Your task to perform on an android device: open device folders in google photos Image 0: 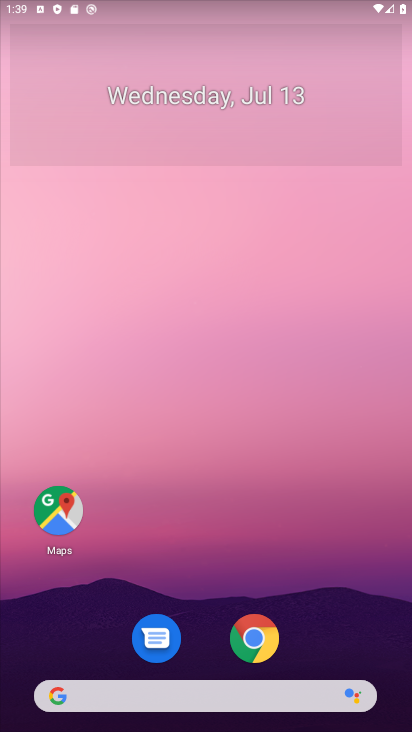
Step 0: drag from (231, 722) to (295, 21)
Your task to perform on an android device: open device folders in google photos Image 1: 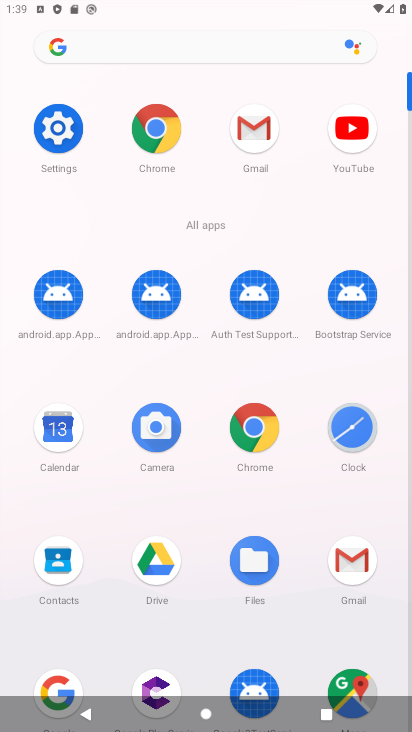
Step 1: drag from (223, 304) to (327, 17)
Your task to perform on an android device: open device folders in google photos Image 2: 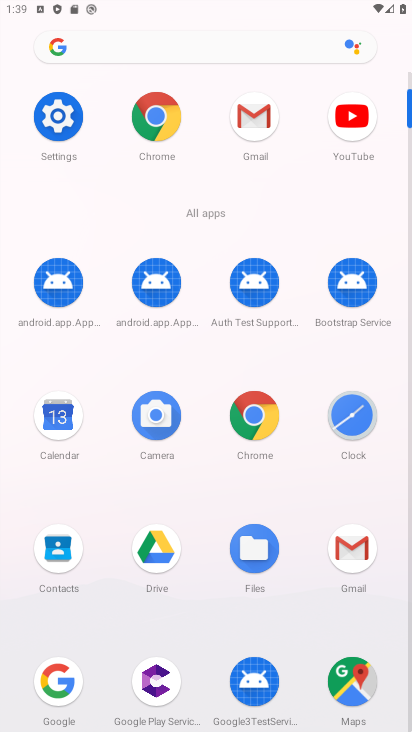
Step 2: drag from (317, 691) to (207, 68)
Your task to perform on an android device: open device folders in google photos Image 3: 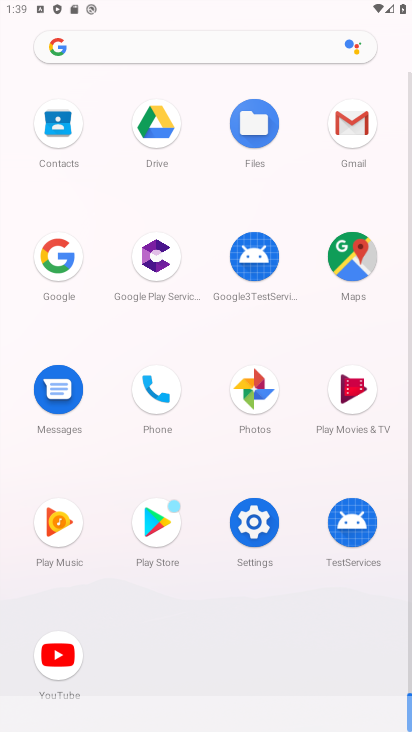
Step 3: click (246, 387)
Your task to perform on an android device: open device folders in google photos Image 4: 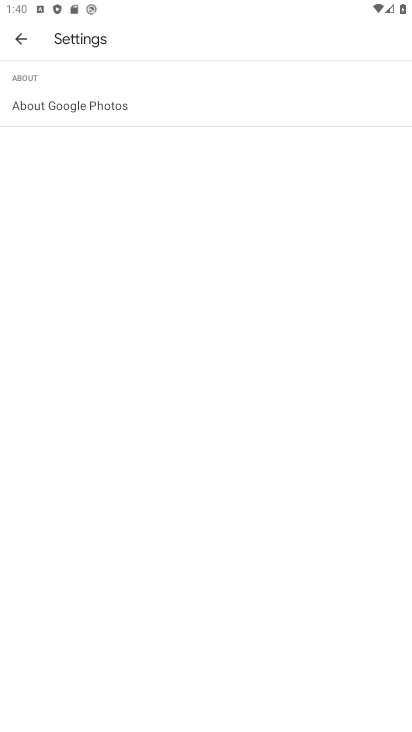
Step 4: press home button
Your task to perform on an android device: open device folders in google photos Image 5: 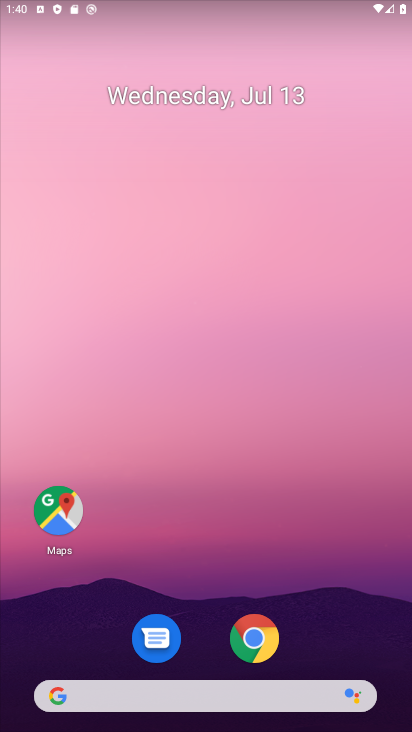
Step 5: drag from (253, 591) to (337, 122)
Your task to perform on an android device: open device folders in google photos Image 6: 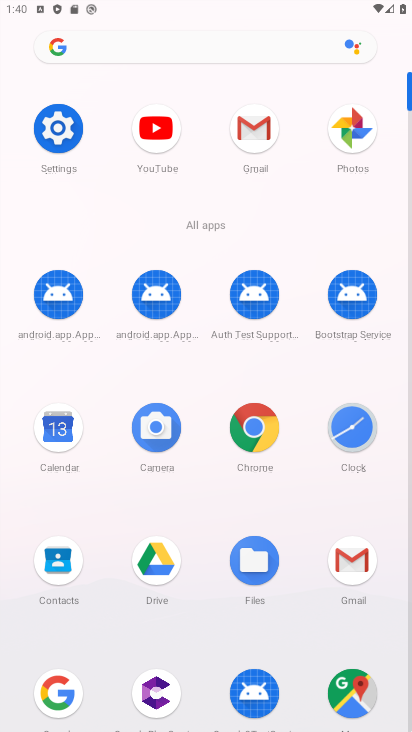
Step 6: click (352, 119)
Your task to perform on an android device: open device folders in google photos Image 7: 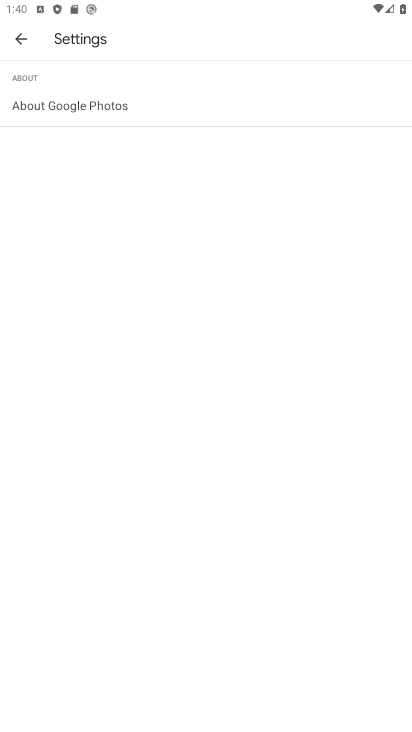
Step 7: click (27, 39)
Your task to perform on an android device: open device folders in google photos Image 8: 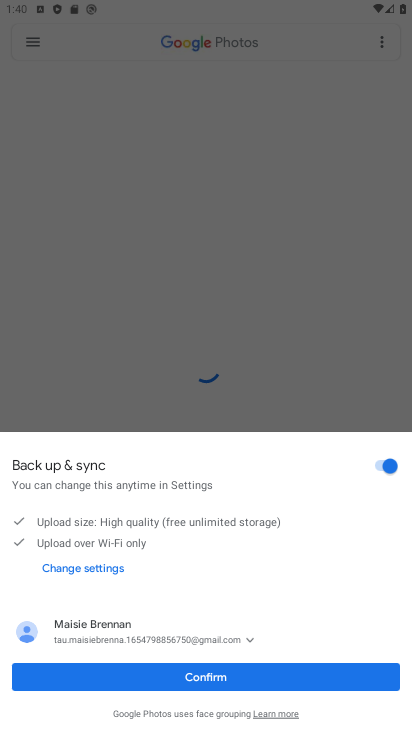
Step 8: click (223, 664)
Your task to perform on an android device: open device folders in google photos Image 9: 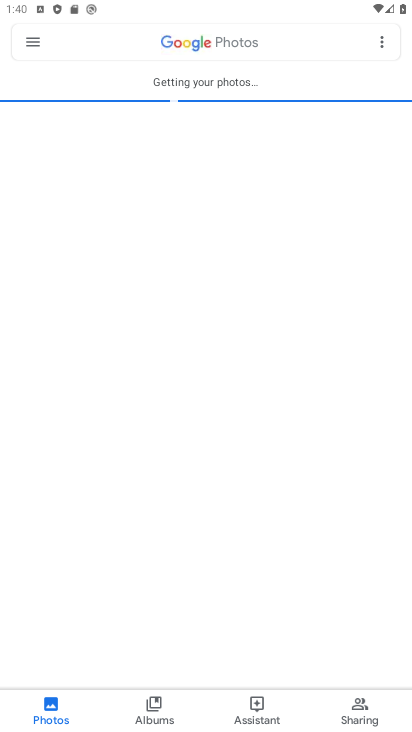
Step 9: click (36, 44)
Your task to perform on an android device: open device folders in google photos Image 10: 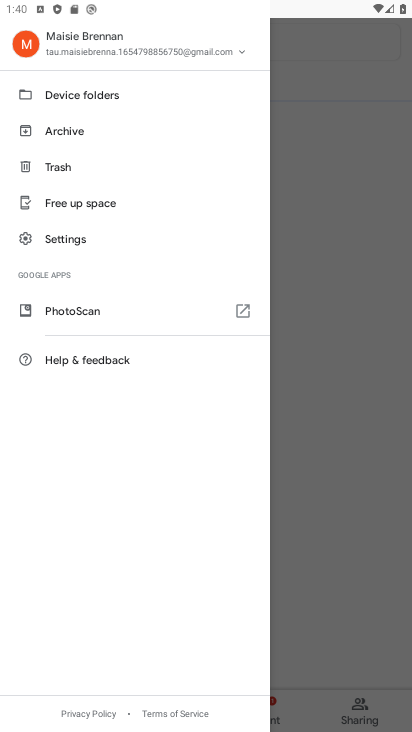
Step 10: click (74, 91)
Your task to perform on an android device: open device folders in google photos Image 11: 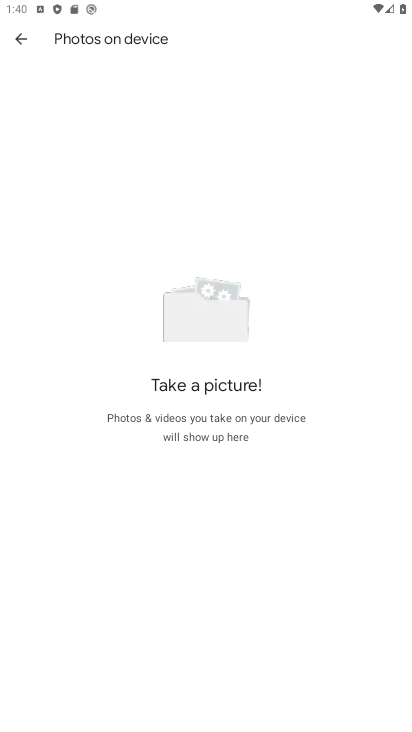
Step 11: task complete